Your task to perform on an android device: Go to settings Image 0: 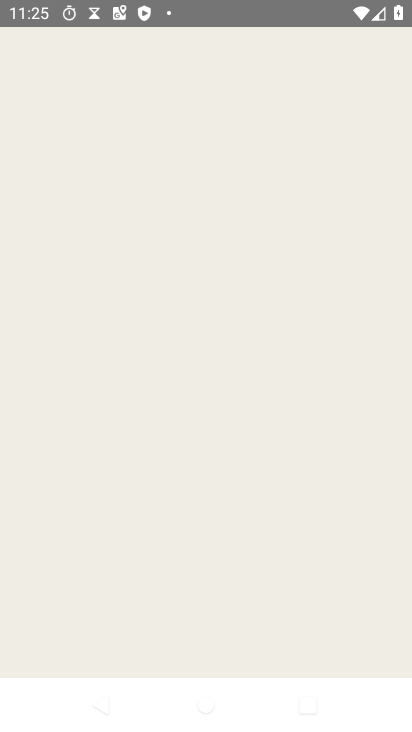
Step 0: drag from (295, 537) to (304, 203)
Your task to perform on an android device: Go to settings Image 1: 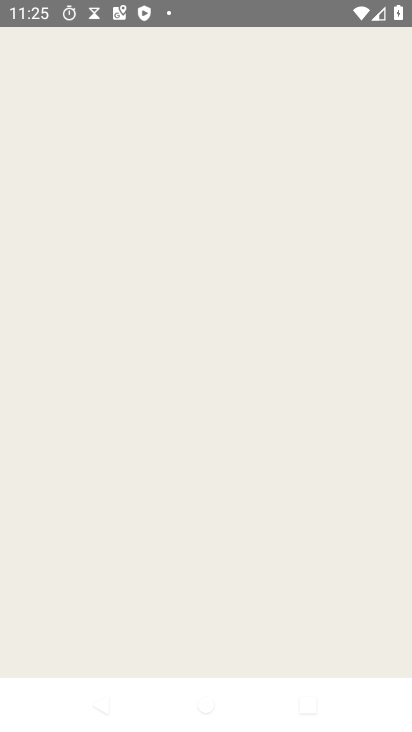
Step 1: press home button
Your task to perform on an android device: Go to settings Image 2: 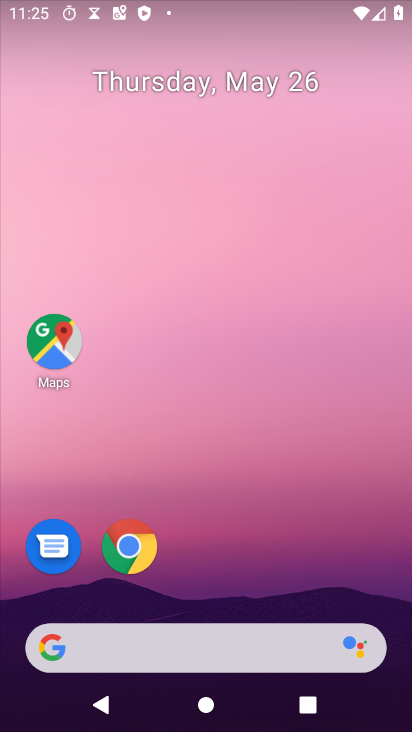
Step 2: drag from (357, 542) to (336, 211)
Your task to perform on an android device: Go to settings Image 3: 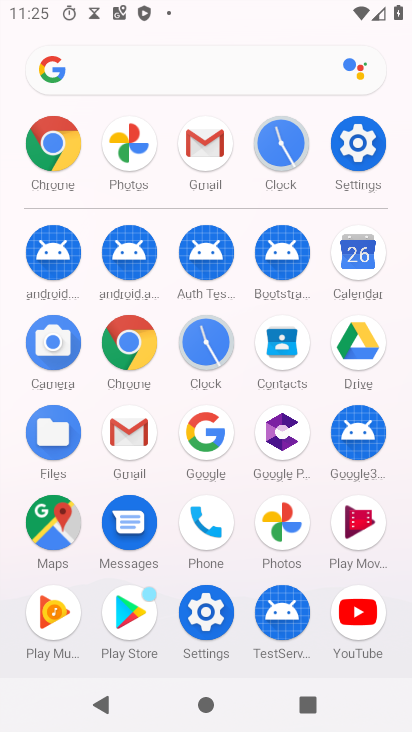
Step 3: click (374, 150)
Your task to perform on an android device: Go to settings Image 4: 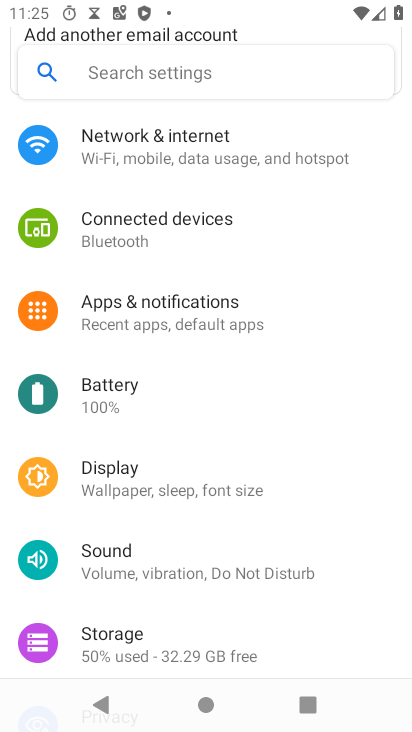
Step 4: task complete